Your task to perform on an android device: open a bookmark in the chrome app Image 0: 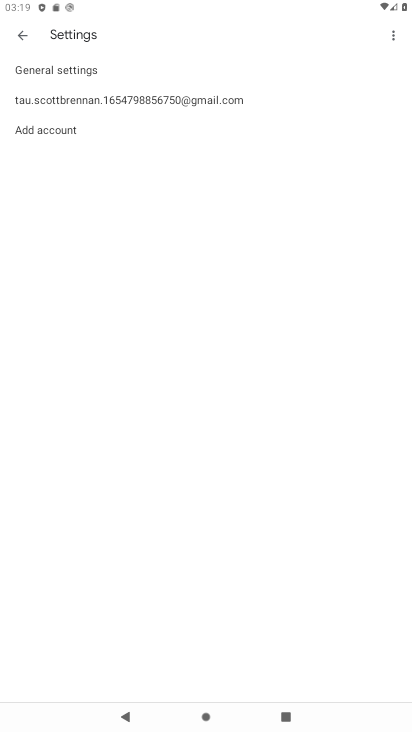
Step 0: press home button
Your task to perform on an android device: open a bookmark in the chrome app Image 1: 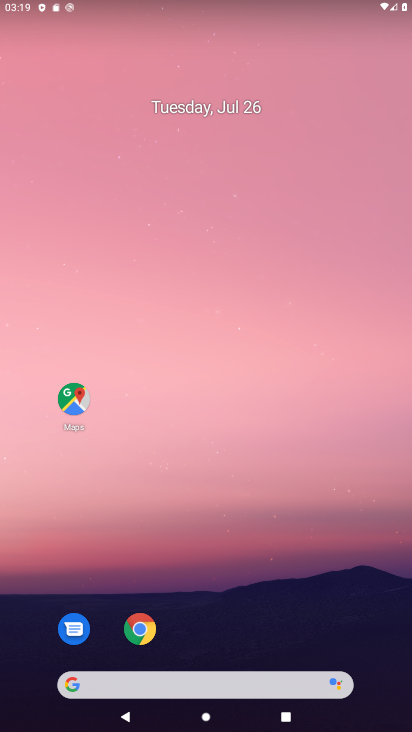
Step 1: drag from (254, 647) to (260, 75)
Your task to perform on an android device: open a bookmark in the chrome app Image 2: 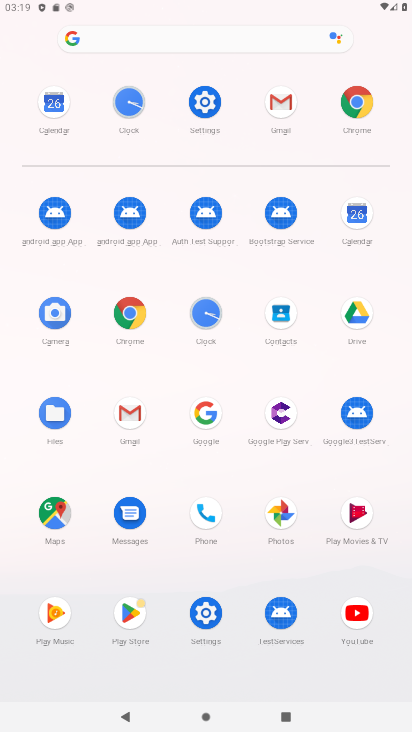
Step 2: click (130, 318)
Your task to perform on an android device: open a bookmark in the chrome app Image 3: 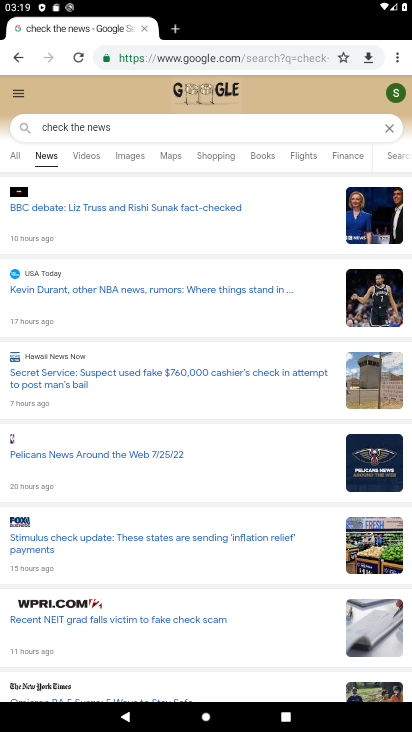
Step 3: task complete